Your task to perform on an android device: Open the web browser Image 0: 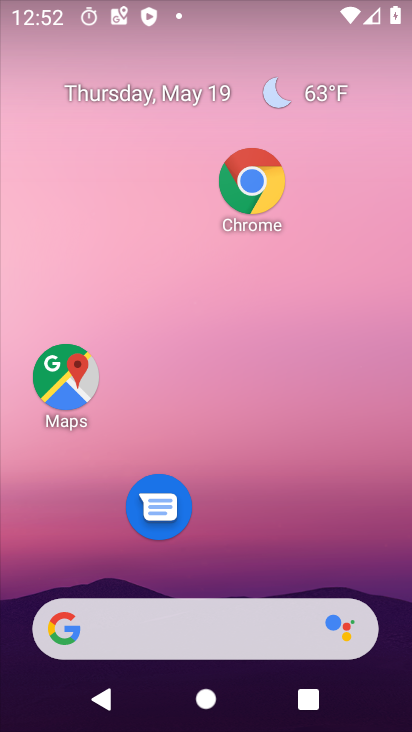
Step 0: click (257, 196)
Your task to perform on an android device: Open the web browser Image 1: 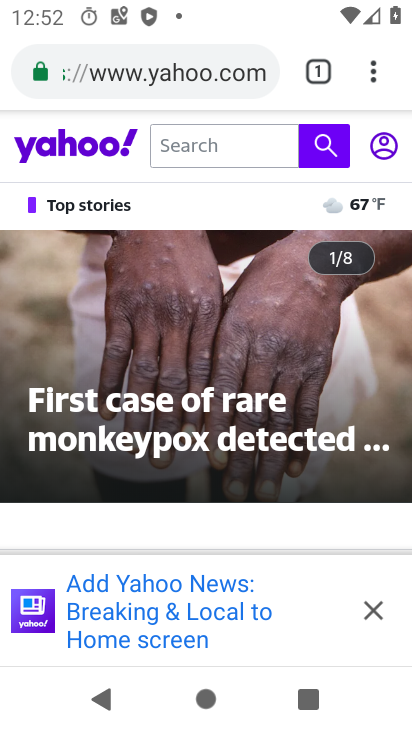
Step 1: task complete